Your task to perform on an android device: toggle pop-ups in chrome Image 0: 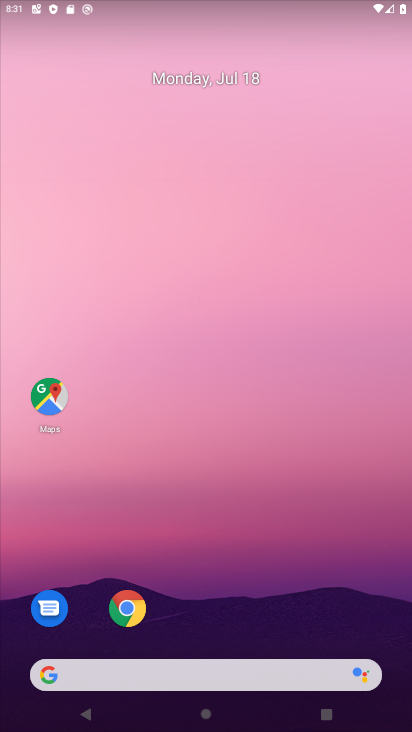
Step 0: click (129, 602)
Your task to perform on an android device: toggle pop-ups in chrome Image 1: 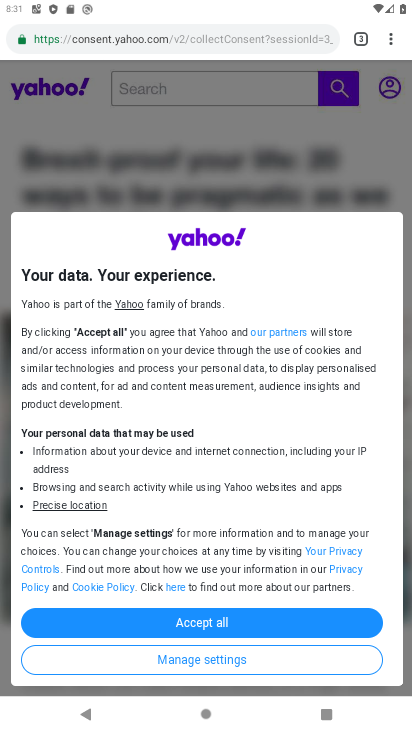
Step 1: click (388, 41)
Your task to perform on an android device: toggle pop-ups in chrome Image 2: 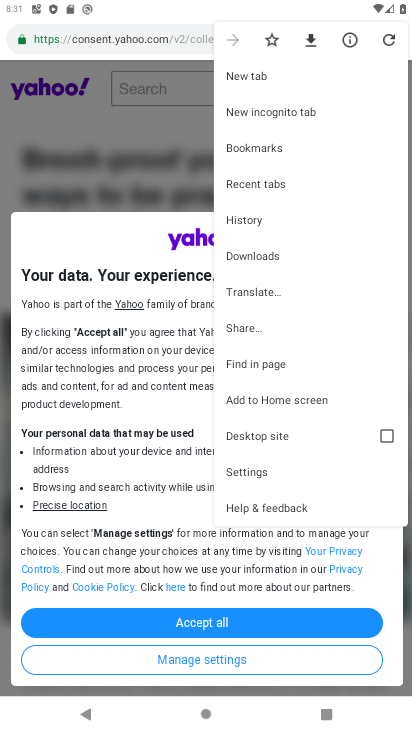
Step 2: click (246, 470)
Your task to perform on an android device: toggle pop-ups in chrome Image 3: 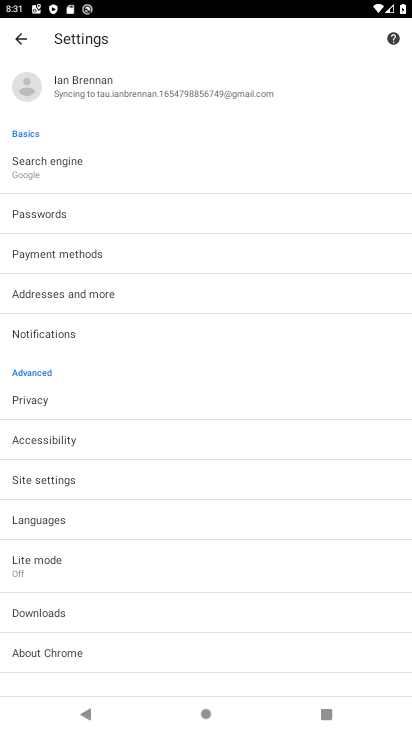
Step 3: click (54, 480)
Your task to perform on an android device: toggle pop-ups in chrome Image 4: 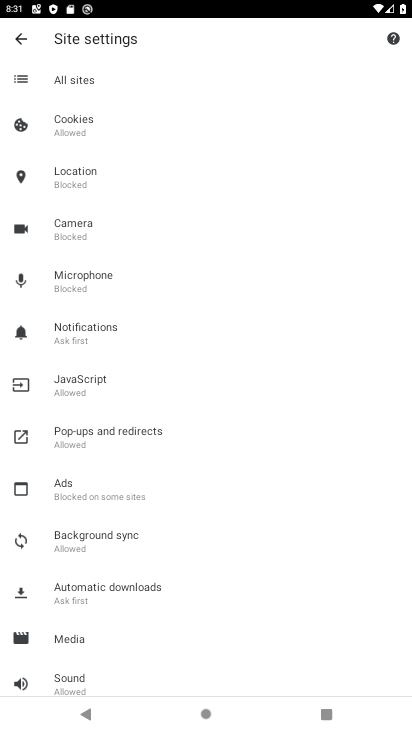
Step 4: click (73, 428)
Your task to perform on an android device: toggle pop-ups in chrome Image 5: 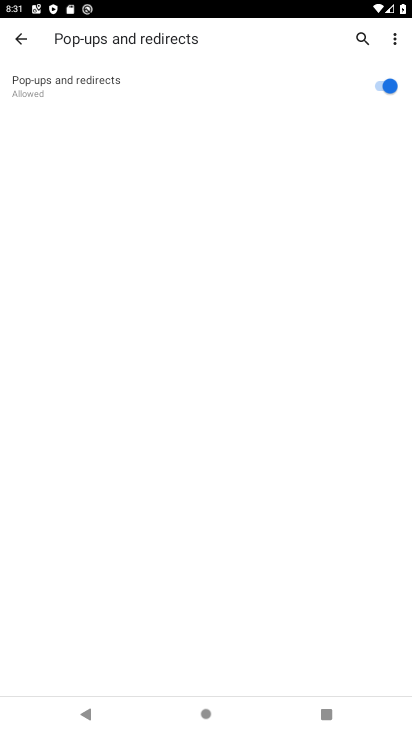
Step 5: click (380, 93)
Your task to perform on an android device: toggle pop-ups in chrome Image 6: 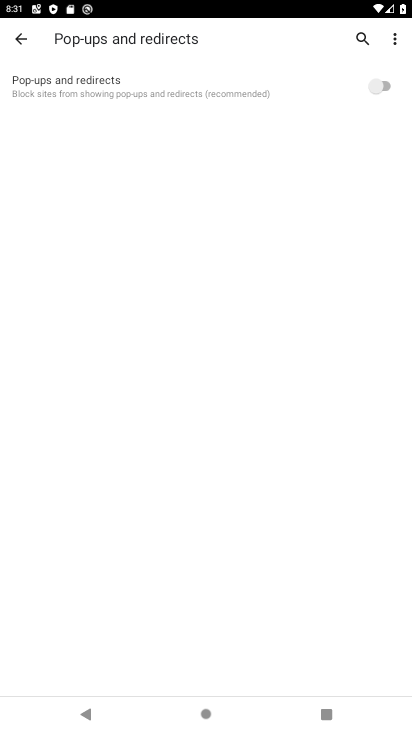
Step 6: task complete